Your task to perform on an android device: Open Yahoo.com Image 0: 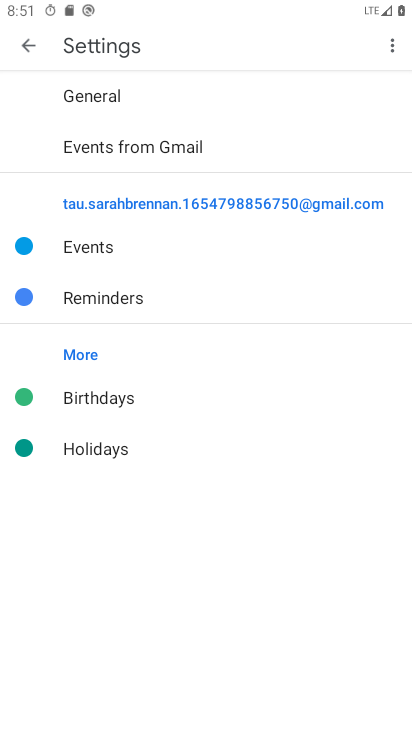
Step 0: press home button
Your task to perform on an android device: Open Yahoo.com Image 1: 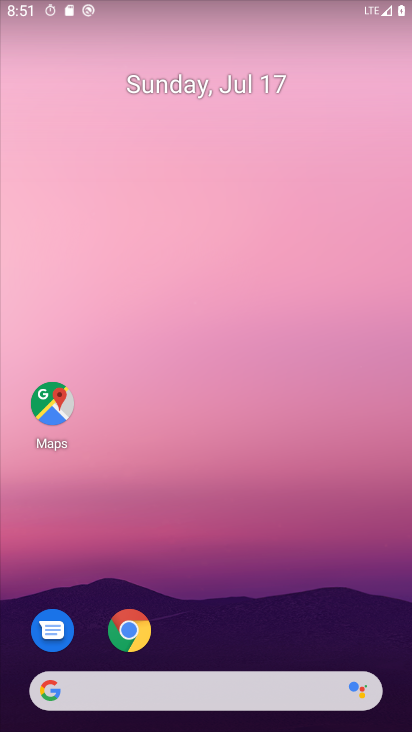
Step 1: click (133, 628)
Your task to perform on an android device: Open Yahoo.com Image 2: 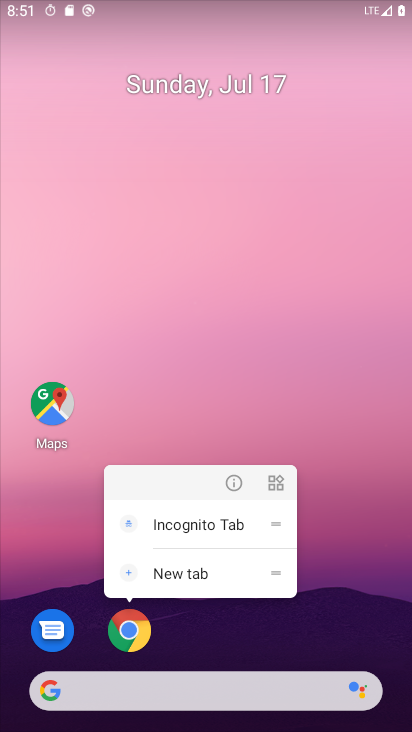
Step 2: click (133, 627)
Your task to perform on an android device: Open Yahoo.com Image 3: 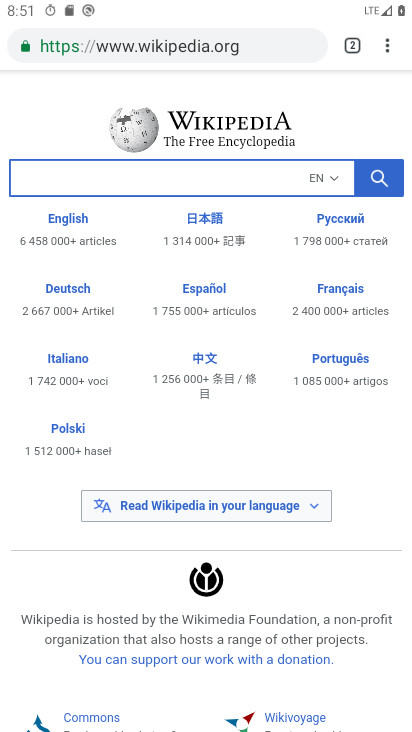
Step 3: click (219, 49)
Your task to perform on an android device: Open Yahoo.com Image 4: 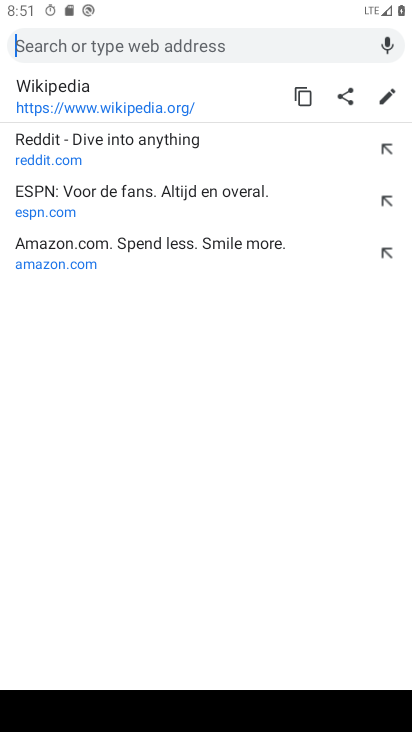
Step 4: type "Yahoo.com"
Your task to perform on an android device: Open Yahoo.com Image 5: 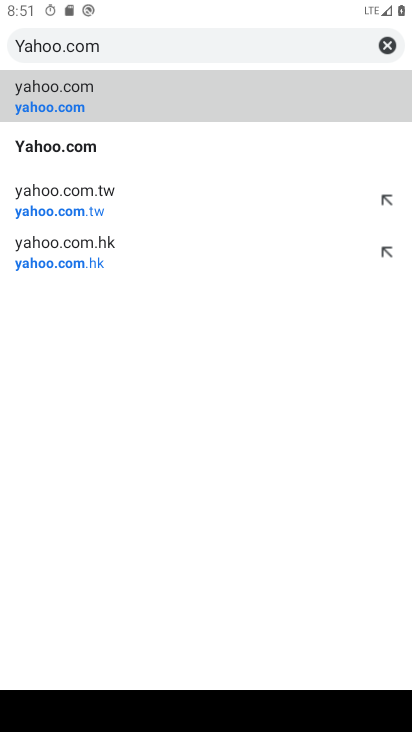
Step 5: click (121, 100)
Your task to perform on an android device: Open Yahoo.com Image 6: 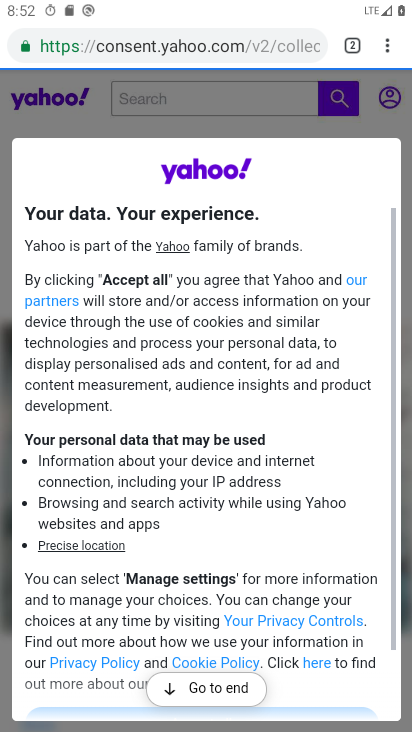
Step 6: task complete